Your task to perform on an android device: check the backup settings in the google photos Image 0: 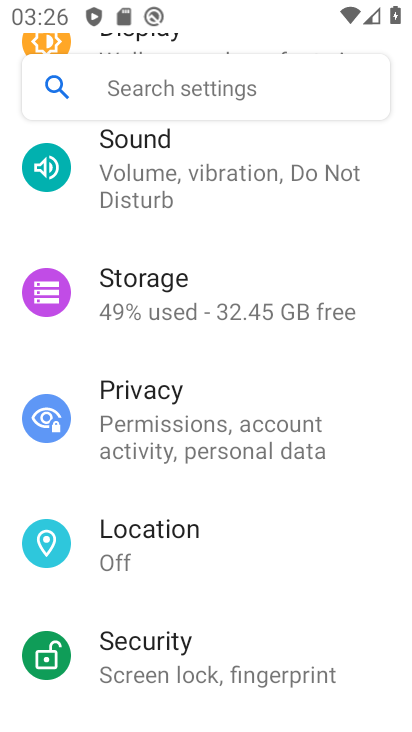
Step 0: press home button
Your task to perform on an android device: check the backup settings in the google photos Image 1: 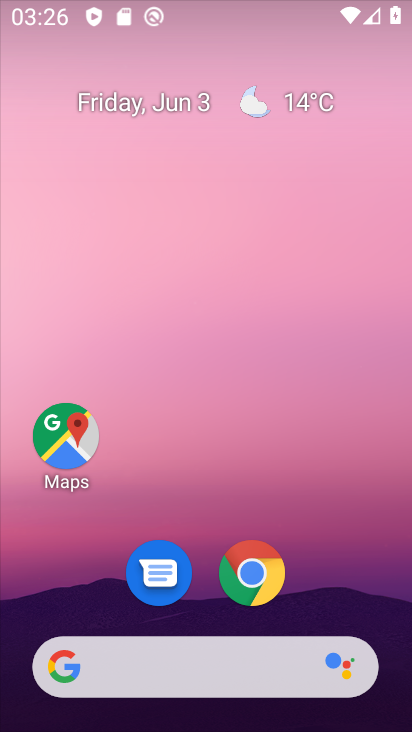
Step 1: drag from (352, 702) to (347, 7)
Your task to perform on an android device: check the backup settings in the google photos Image 2: 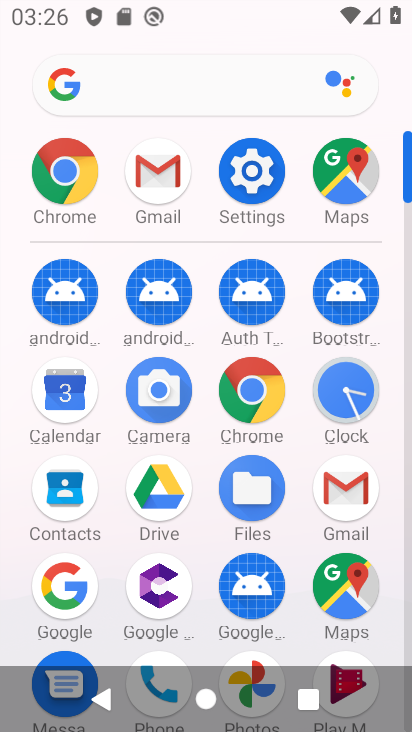
Step 2: drag from (287, 590) to (306, 324)
Your task to perform on an android device: check the backup settings in the google photos Image 3: 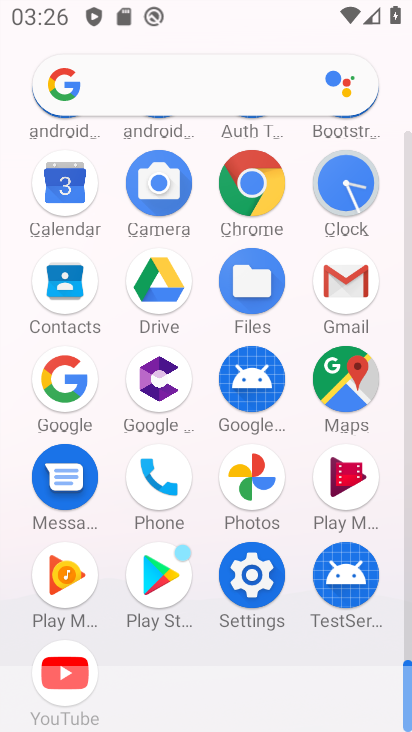
Step 3: click (263, 492)
Your task to perform on an android device: check the backup settings in the google photos Image 4: 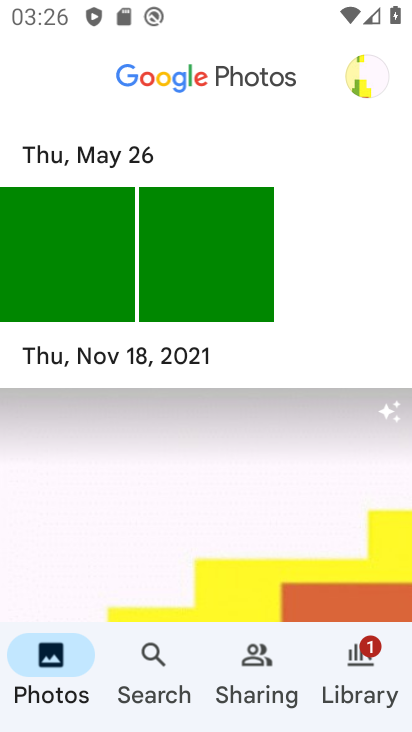
Step 4: click (359, 78)
Your task to perform on an android device: check the backup settings in the google photos Image 5: 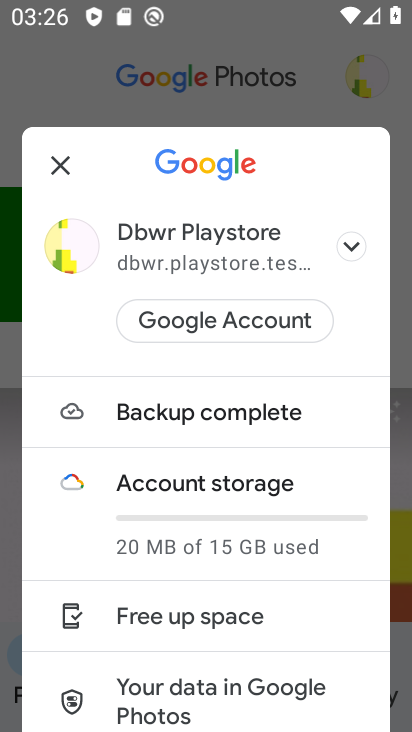
Step 5: drag from (249, 652) to (288, 218)
Your task to perform on an android device: check the backup settings in the google photos Image 6: 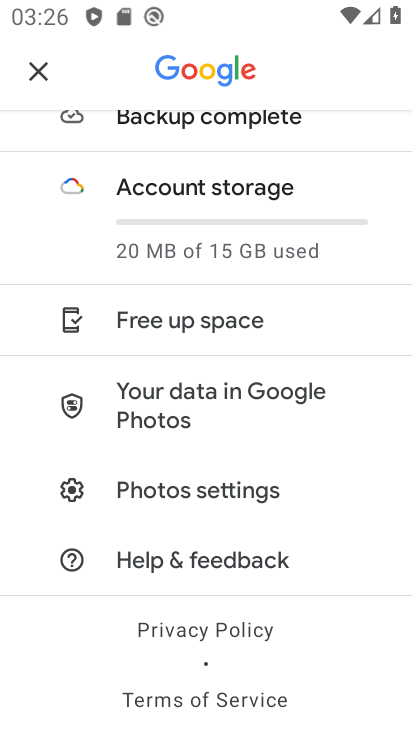
Step 6: click (205, 489)
Your task to perform on an android device: check the backup settings in the google photos Image 7: 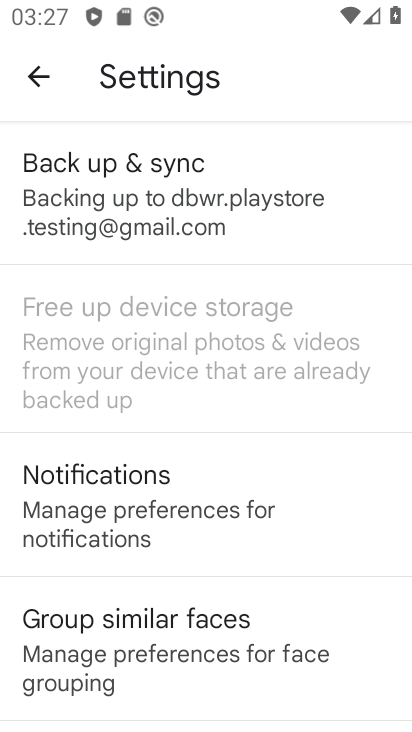
Step 7: click (172, 216)
Your task to perform on an android device: check the backup settings in the google photos Image 8: 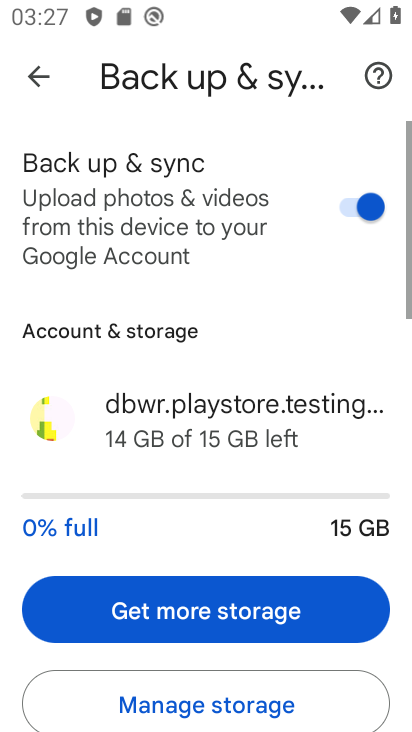
Step 8: task complete